Your task to perform on an android device: all mails in gmail Image 0: 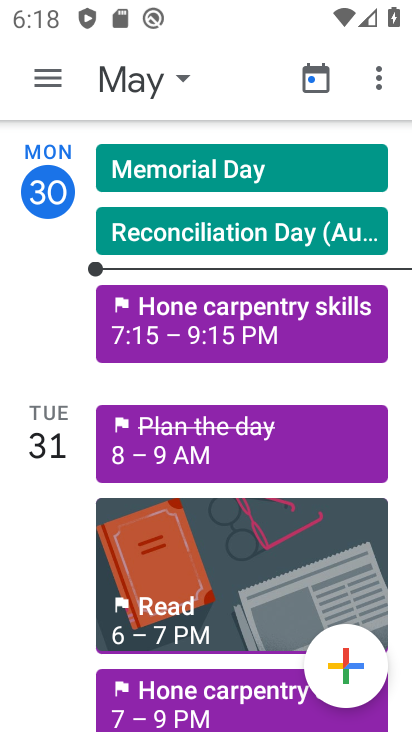
Step 0: press home button
Your task to perform on an android device: all mails in gmail Image 1: 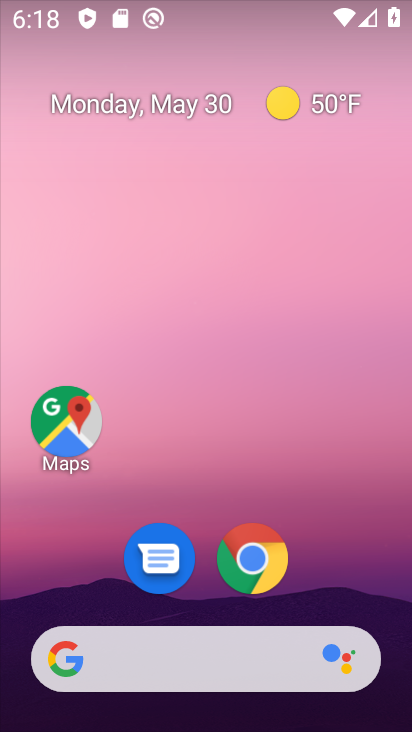
Step 1: drag from (396, 643) to (312, 17)
Your task to perform on an android device: all mails in gmail Image 2: 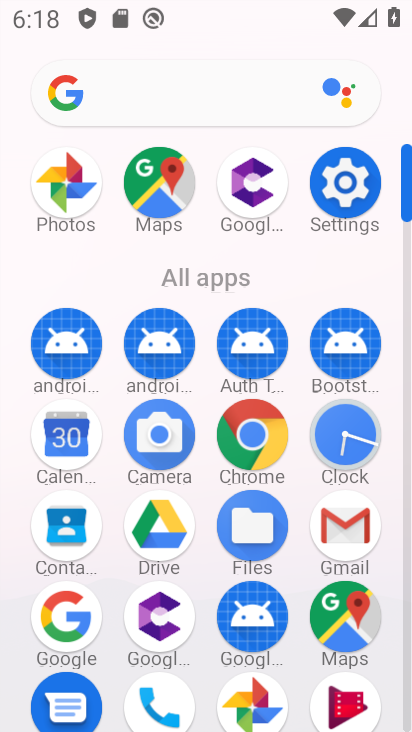
Step 2: click (337, 517)
Your task to perform on an android device: all mails in gmail Image 3: 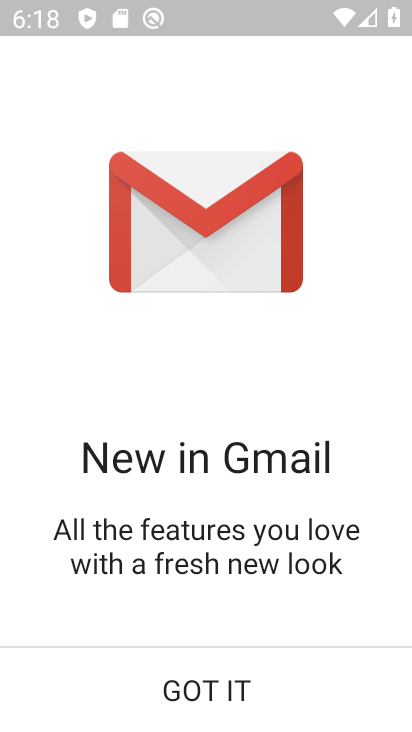
Step 3: click (267, 688)
Your task to perform on an android device: all mails in gmail Image 4: 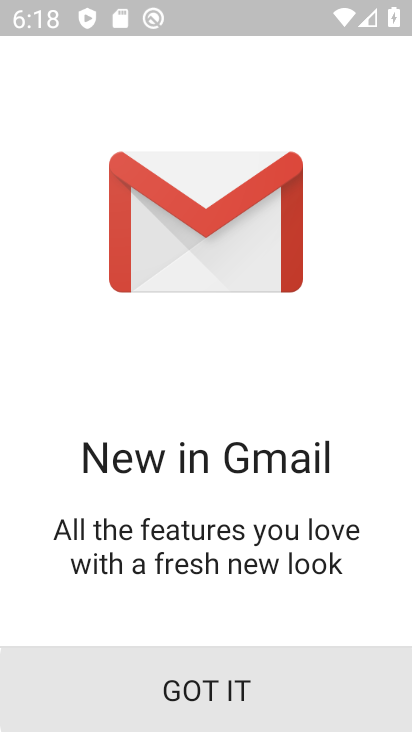
Step 4: click (267, 688)
Your task to perform on an android device: all mails in gmail Image 5: 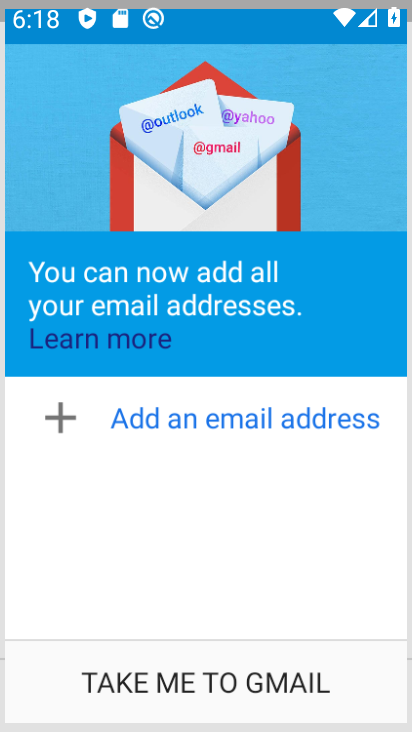
Step 5: click (267, 688)
Your task to perform on an android device: all mails in gmail Image 6: 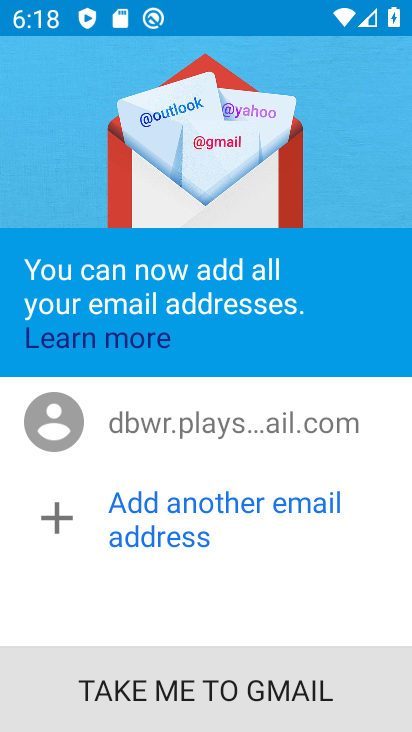
Step 6: click (267, 688)
Your task to perform on an android device: all mails in gmail Image 7: 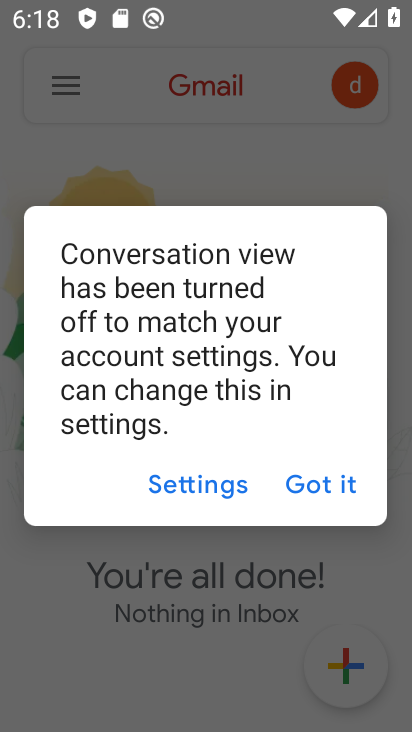
Step 7: click (338, 496)
Your task to perform on an android device: all mails in gmail Image 8: 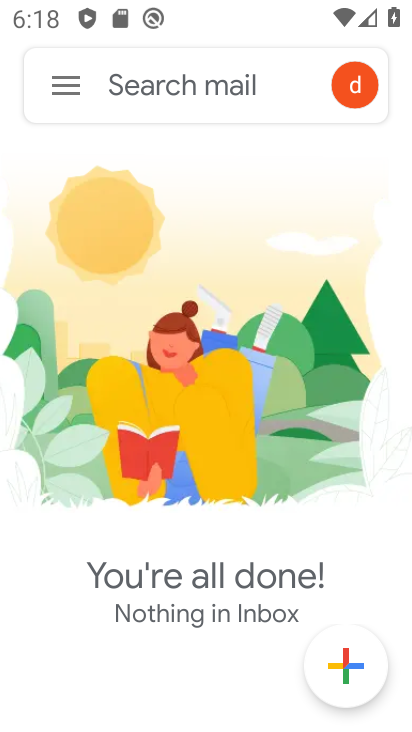
Step 8: click (56, 90)
Your task to perform on an android device: all mails in gmail Image 9: 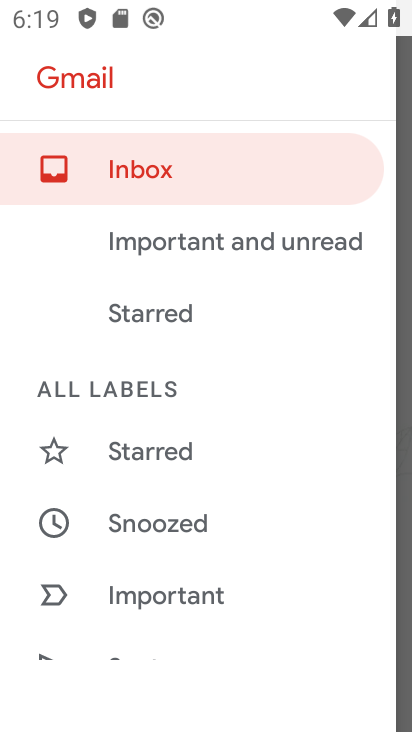
Step 9: drag from (219, 502) to (140, 23)
Your task to perform on an android device: all mails in gmail Image 10: 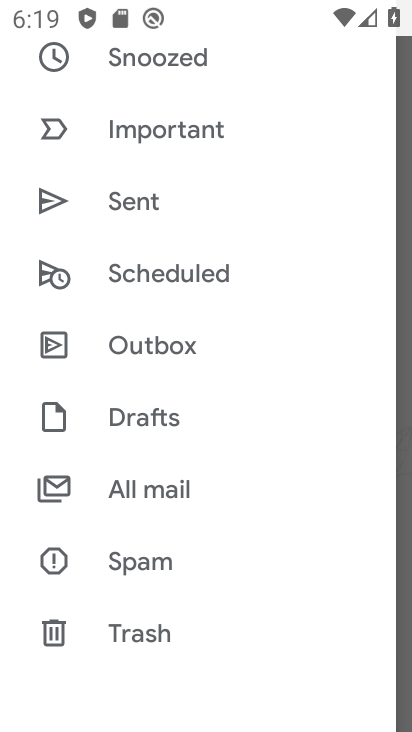
Step 10: click (171, 500)
Your task to perform on an android device: all mails in gmail Image 11: 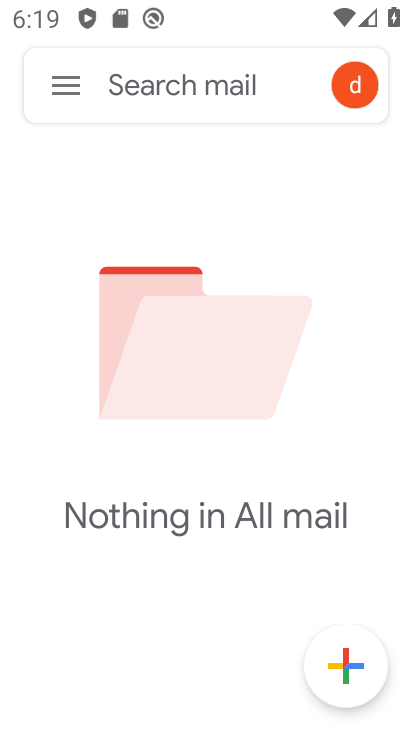
Step 11: task complete